Your task to perform on an android device: turn vacation reply on in the gmail app Image 0: 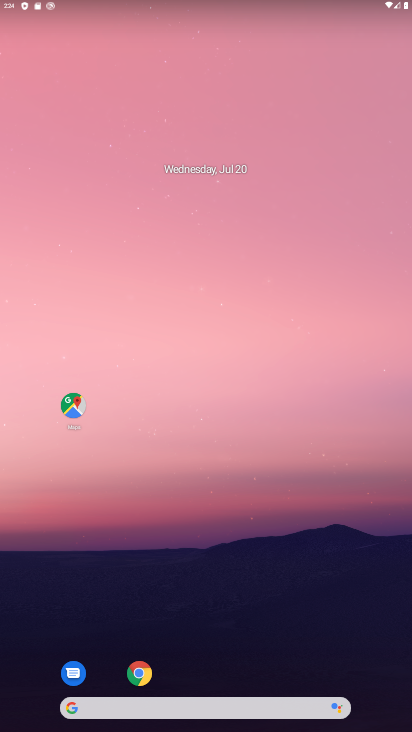
Step 0: drag from (240, 580) to (267, 184)
Your task to perform on an android device: turn vacation reply on in the gmail app Image 1: 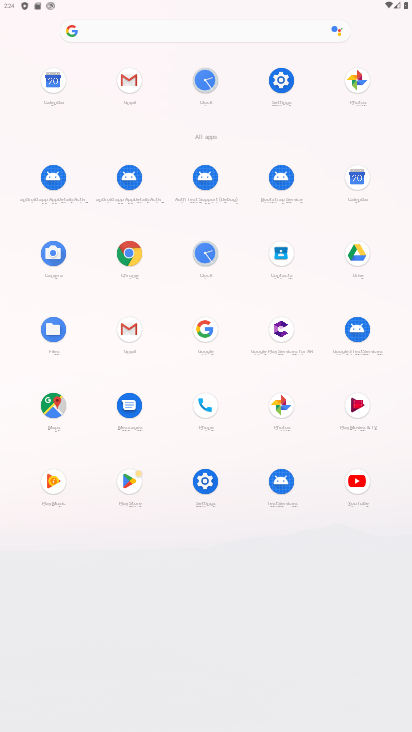
Step 1: click (125, 338)
Your task to perform on an android device: turn vacation reply on in the gmail app Image 2: 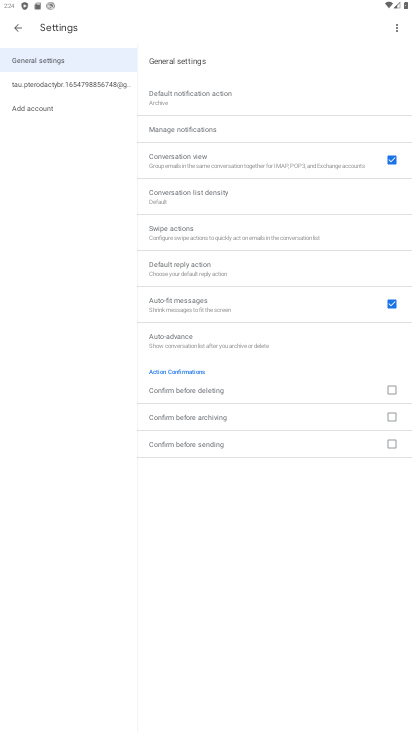
Step 2: click (94, 88)
Your task to perform on an android device: turn vacation reply on in the gmail app Image 3: 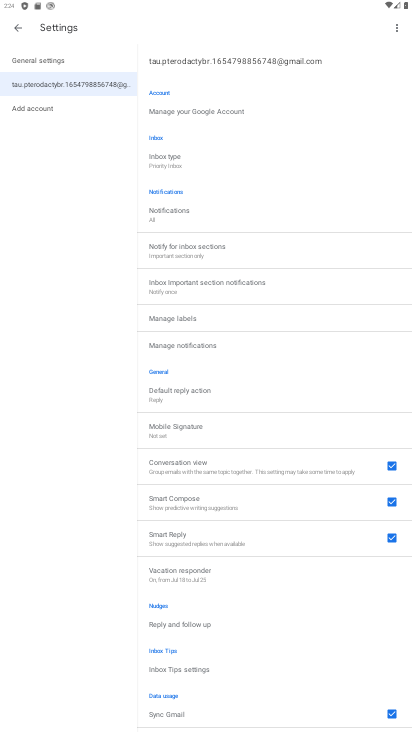
Step 3: drag from (304, 637) to (316, 375)
Your task to perform on an android device: turn vacation reply on in the gmail app Image 4: 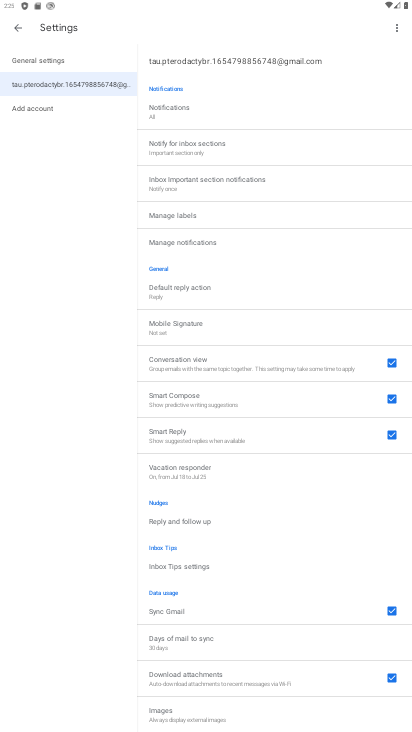
Step 4: drag from (216, 612) to (259, 518)
Your task to perform on an android device: turn vacation reply on in the gmail app Image 5: 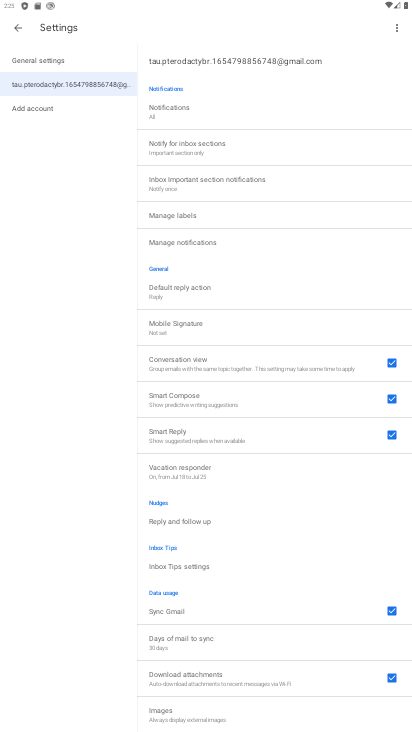
Step 5: click (241, 471)
Your task to perform on an android device: turn vacation reply on in the gmail app Image 6: 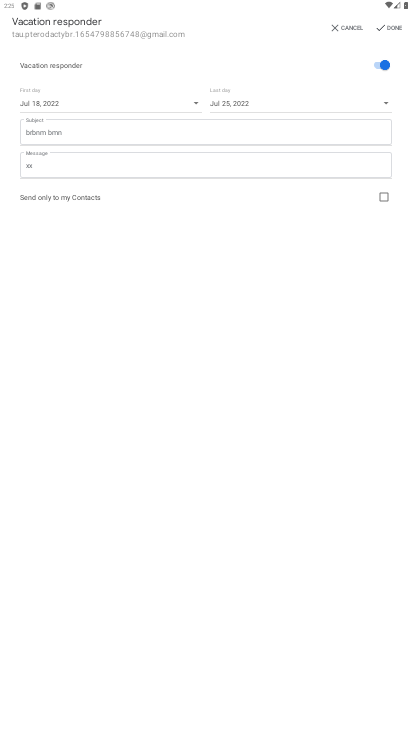
Step 6: click (241, 471)
Your task to perform on an android device: turn vacation reply on in the gmail app Image 7: 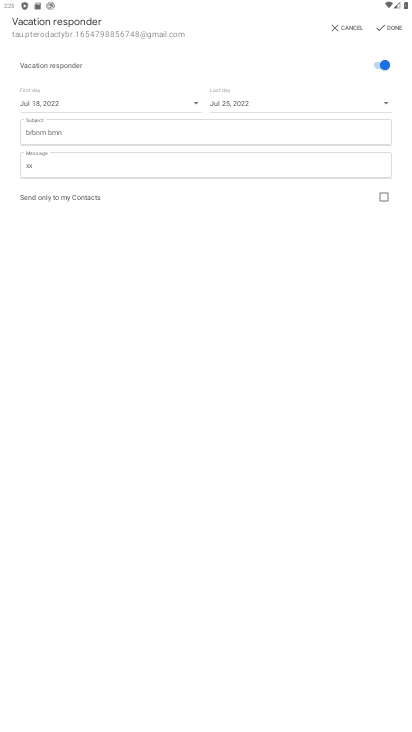
Step 7: click (383, 31)
Your task to perform on an android device: turn vacation reply on in the gmail app Image 8: 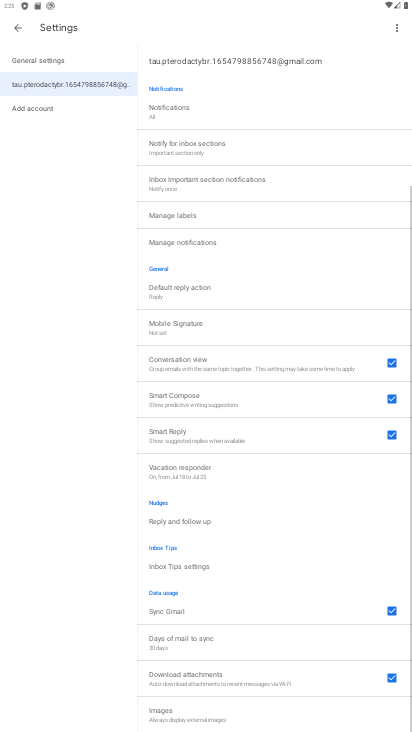
Step 8: task complete